Your task to perform on an android device: Clear the shopping cart on newegg.com. Image 0: 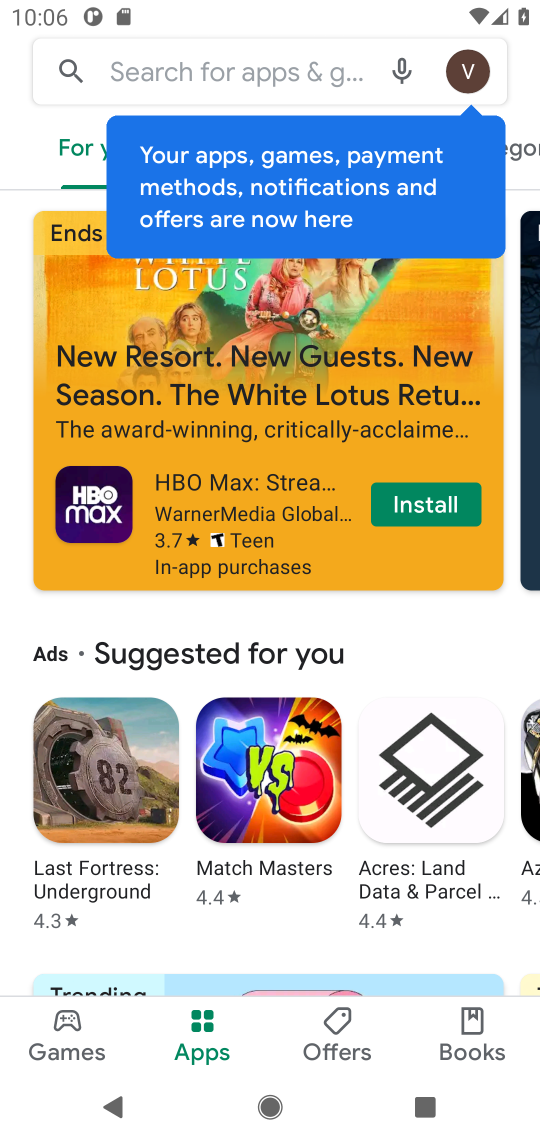
Step 0: press home button
Your task to perform on an android device: Clear the shopping cart on newegg.com. Image 1: 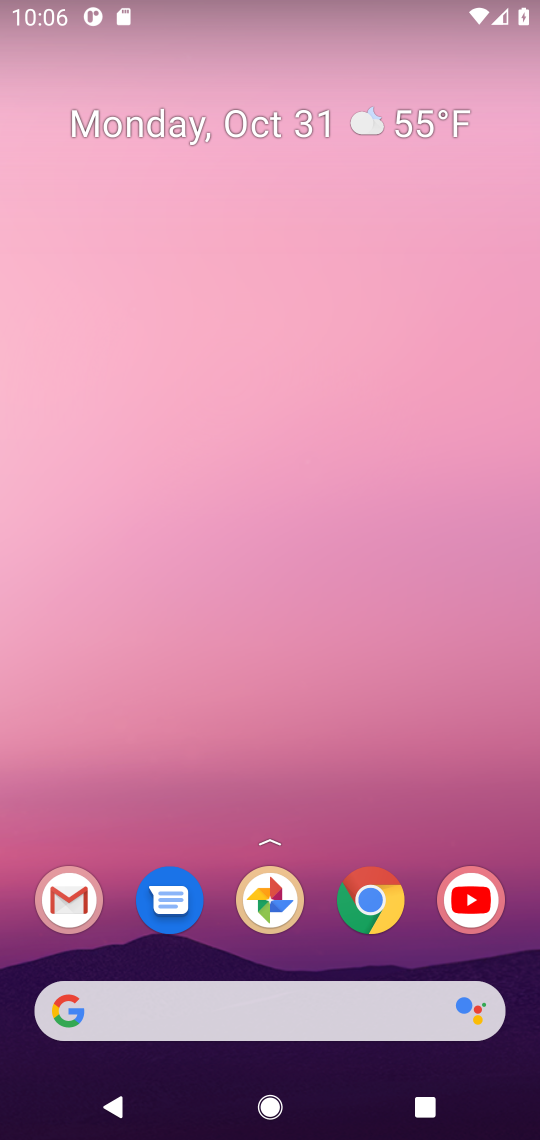
Step 1: click (371, 908)
Your task to perform on an android device: Clear the shopping cart on newegg.com. Image 2: 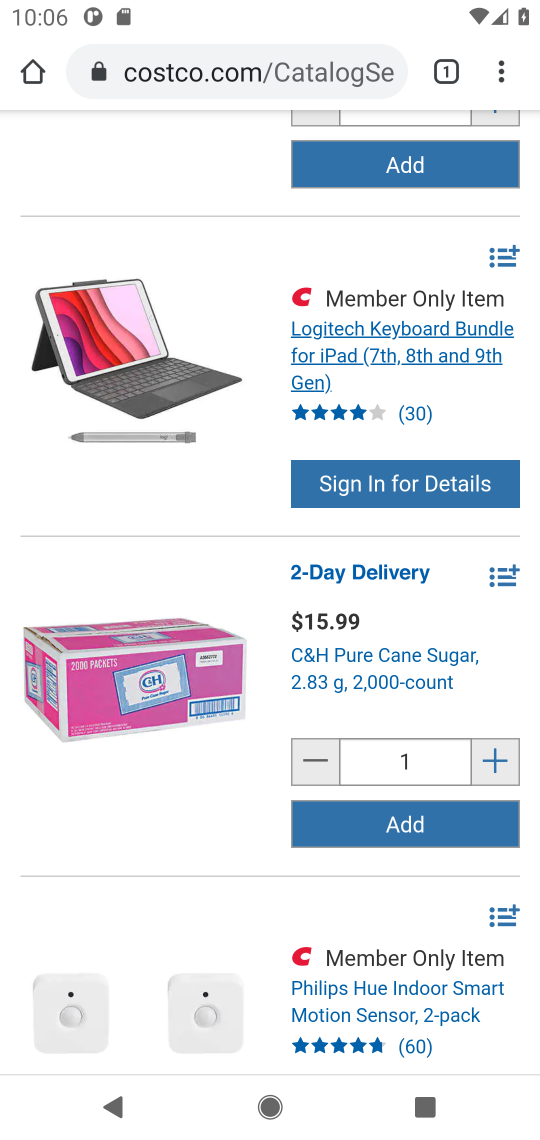
Step 2: click (261, 81)
Your task to perform on an android device: Clear the shopping cart on newegg.com. Image 3: 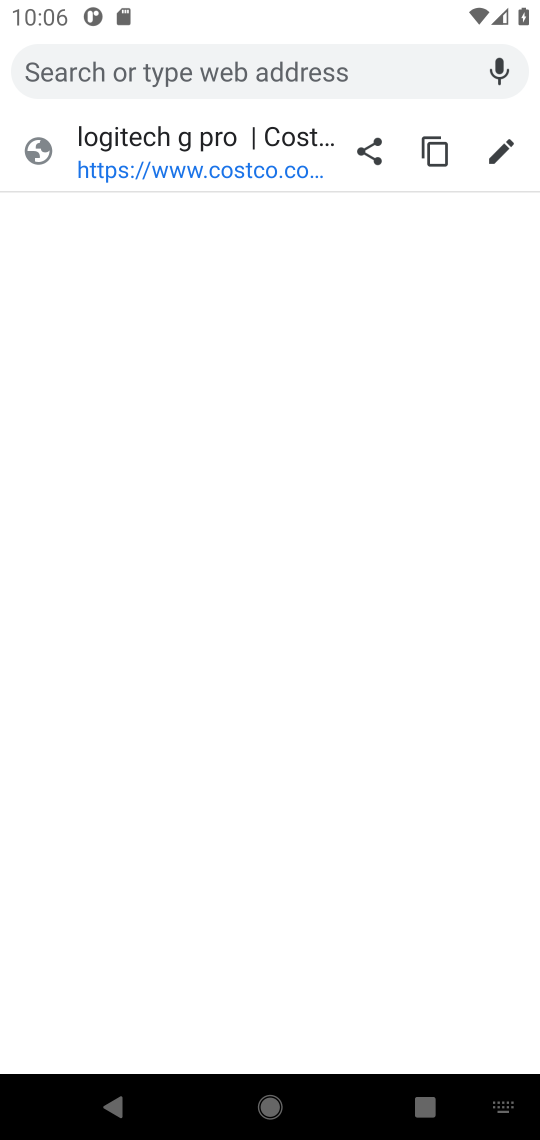
Step 3: type "newegg.com"
Your task to perform on an android device: Clear the shopping cart on newegg.com. Image 4: 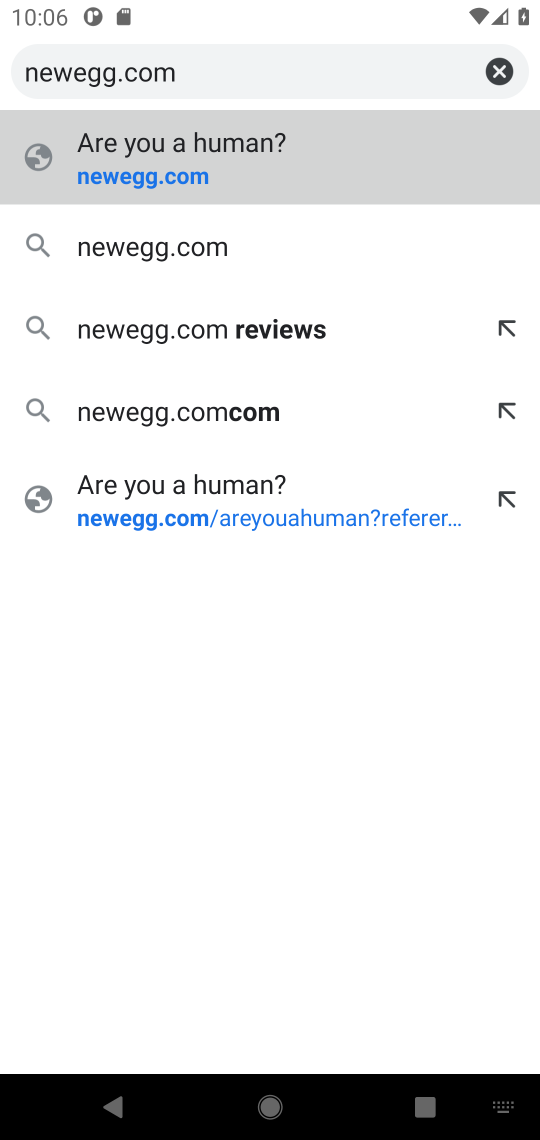
Step 4: click (150, 260)
Your task to perform on an android device: Clear the shopping cart on newegg.com. Image 5: 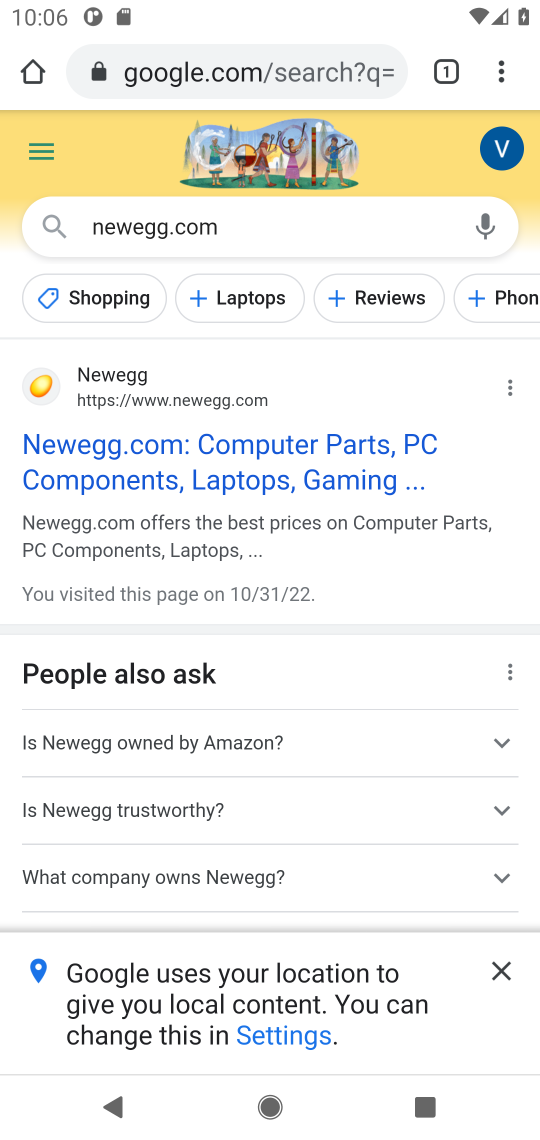
Step 5: click (185, 455)
Your task to perform on an android device: Clear the shopping cart on newegg.com. Image 6: 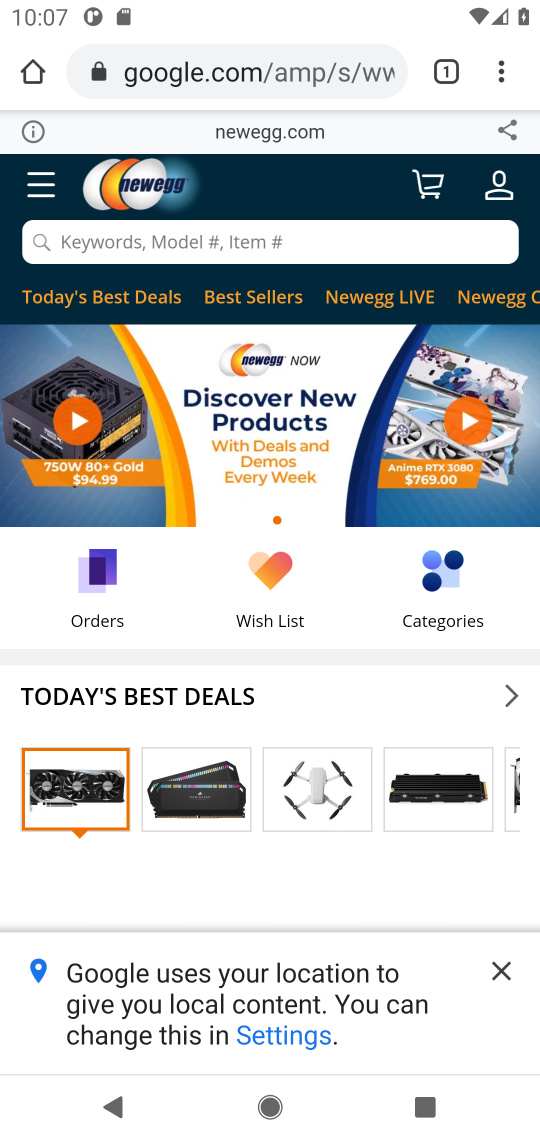
Step 6: click (422, 190)
Your task to perform on an android device: Clear the shopping cart on newegg.com. Image 7: 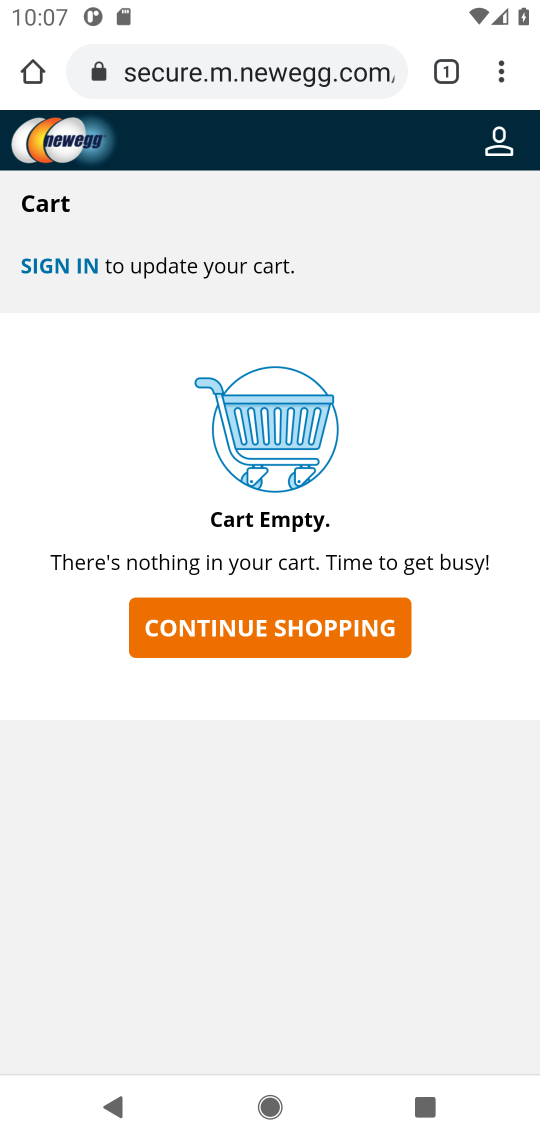
Step 7: task complete